Your task to perform on an android device: Open Youtube and go to the subscriptions tab Image 0: 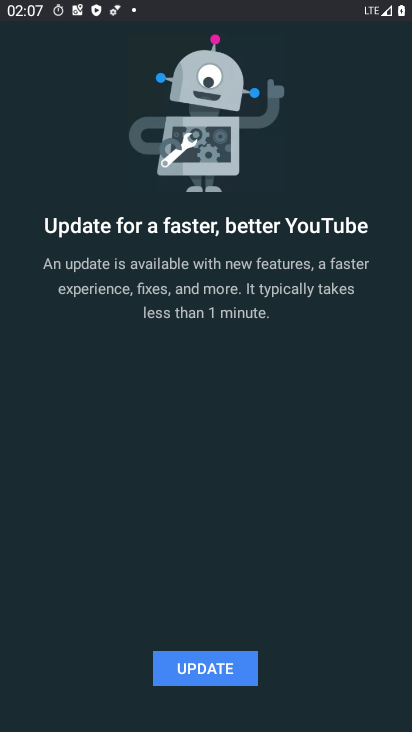
Step 0: press home button
Your task to perform on an android device: Open Youtube and go to the subscriptions tab Image 1: 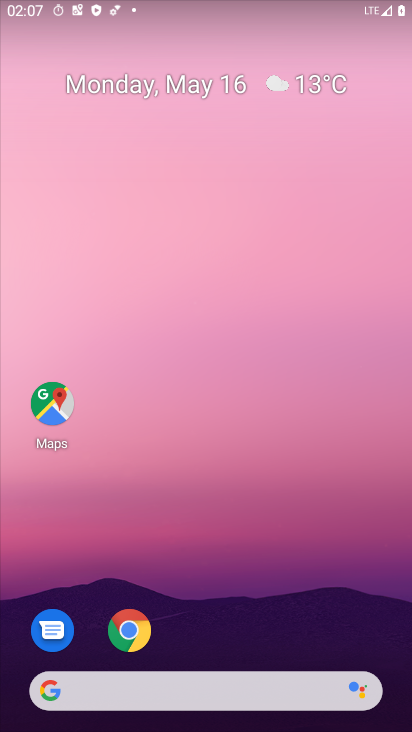
Step 1: drag from (241, 630) to (272, 233)
Your task to perform on an android device: Open Youtube and go to the subscriptions tab Image 2: 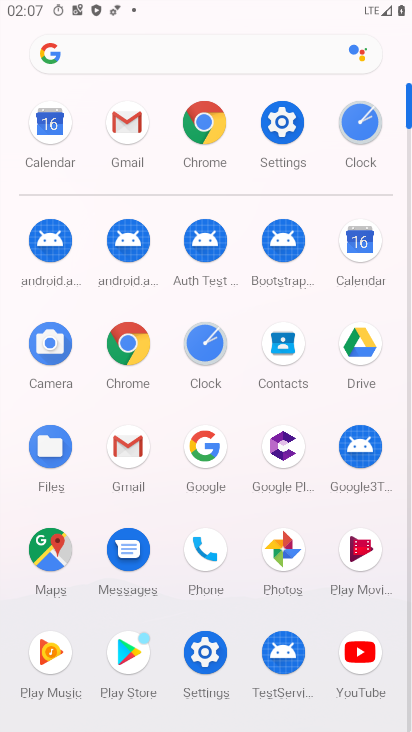
Step 2: click (372, 665)
Your task to perform on an android device: Open Youtube and go to the subscriptions tab Image 3: 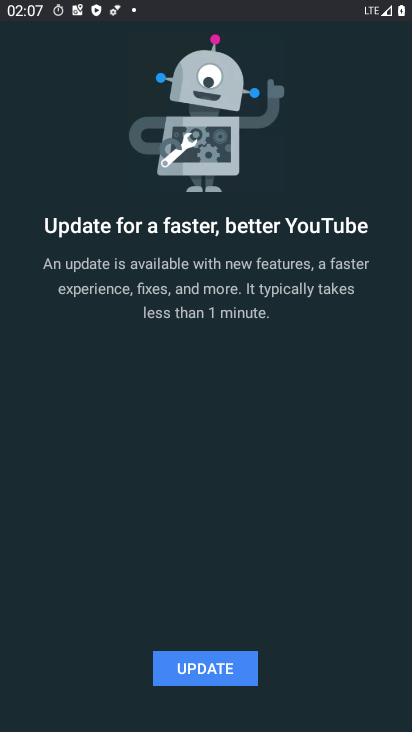
Step 3: click (206, 675)
Your task to perform on an android device: Open Youtube and go to the subscriptions tab Image 4: 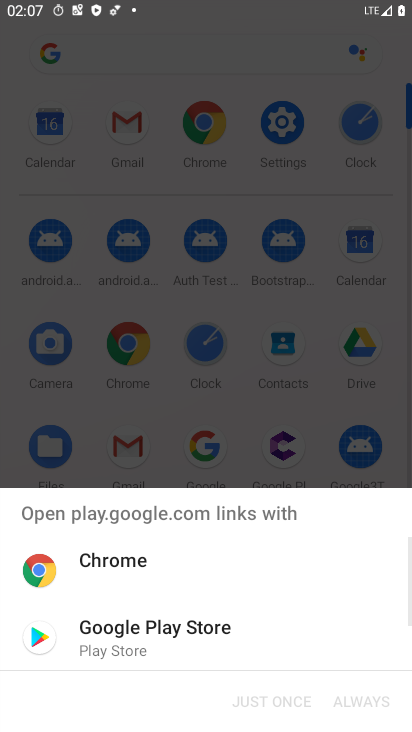
Step 4: click (179, 621)
Your task to perform on an android device: Open Youtube and go to the subscriptions tab Image 5: 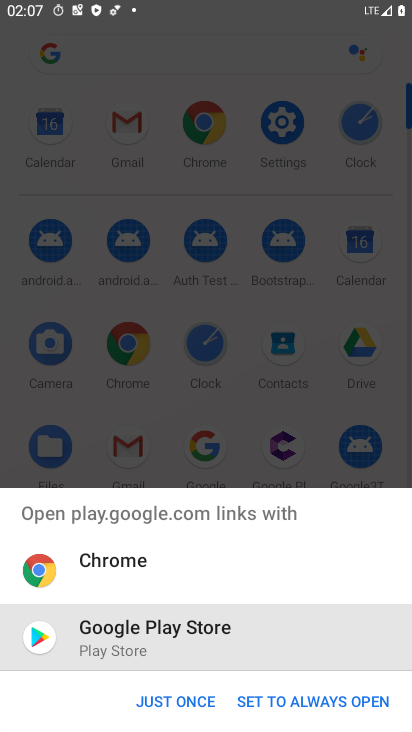
Step 5: click (189, 702)
Your task to perform on an android device: Open Youtube and go to the subscriptions tab Image 6: 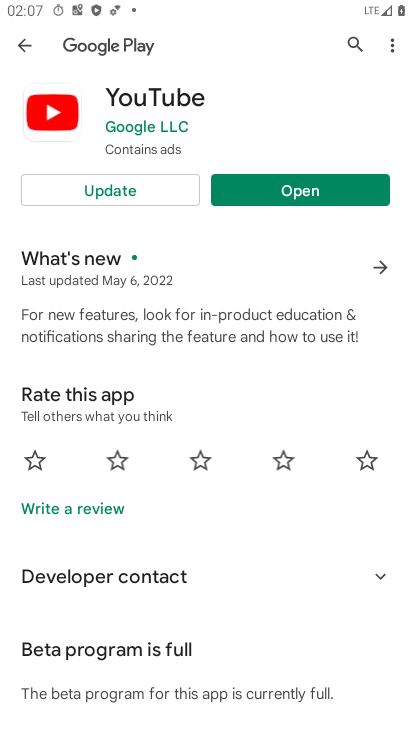
Step 6: click (140, 191)
Your task to perform on an android device: Open Youtube and go to the subscriptions tab Image 7: 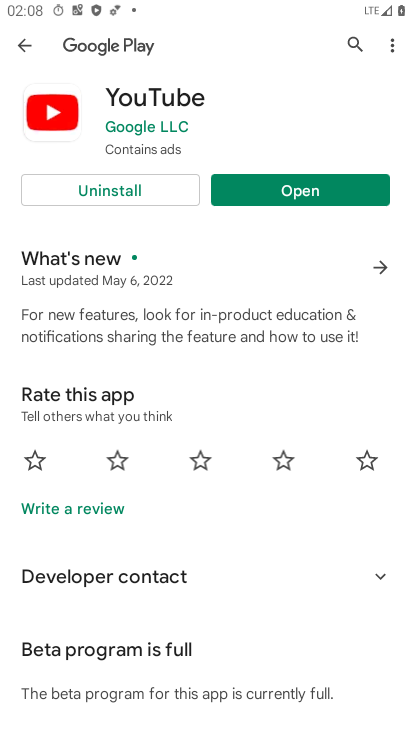
Step 7: click (285, 205)
Your task to perform on an android device: Open Youtube and go to the subscriptions tab Image 8: 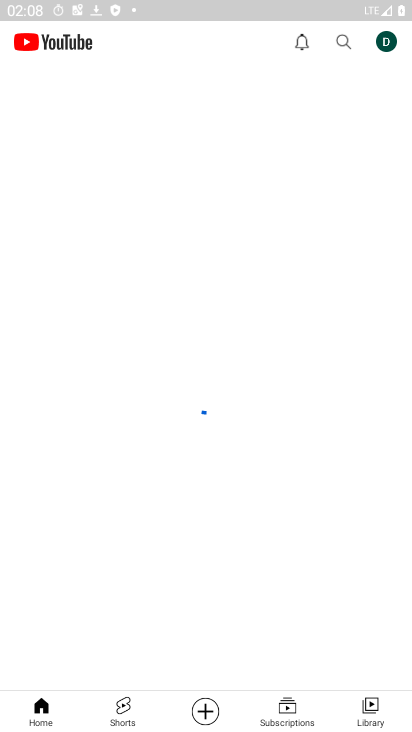
Step 8: click (282, 712)
Your task to perform on an android device: Open Youtube and go to the subscriptions tab Image 9: 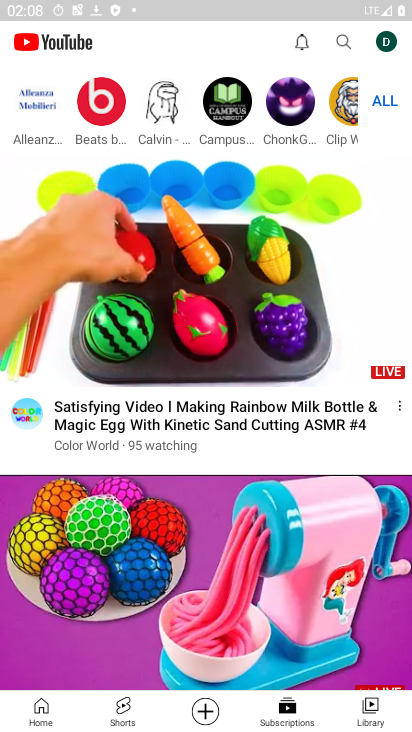
Step 9: task complete